Your task to perform on an android device: turn on the 12-hour format for clock Image 0: 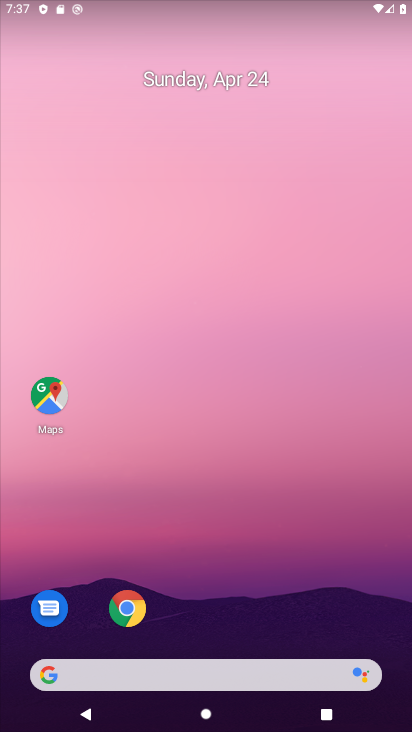
Step 0: drag from (281, 597) to (285, 132)
Your task to perform on an android device: turn on the 12-hour format for clock Image 1: 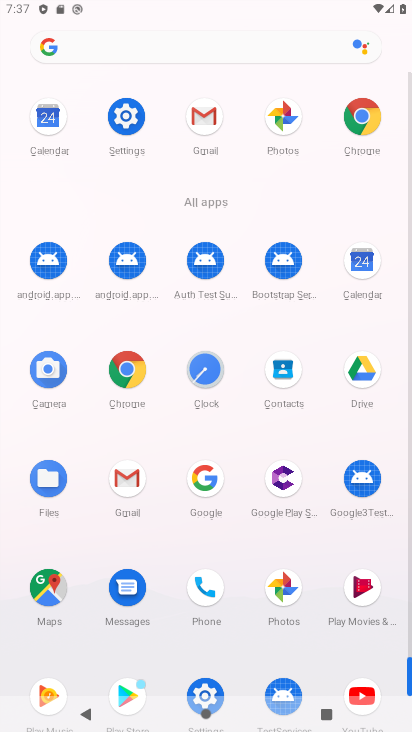
Step 1: click (207, 376)
Your task to perform on an android device: turn on the 12-hour format for clock Image 2: 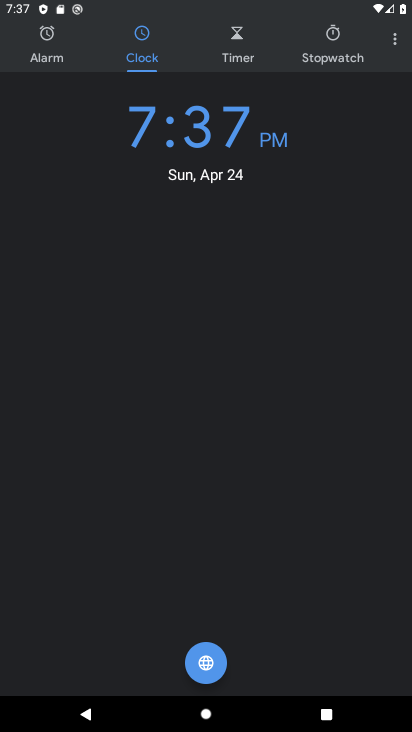
Step 2: click (397, 43)
Your task to perform on an android device: turn on the 12-hour format for clock Image 3: 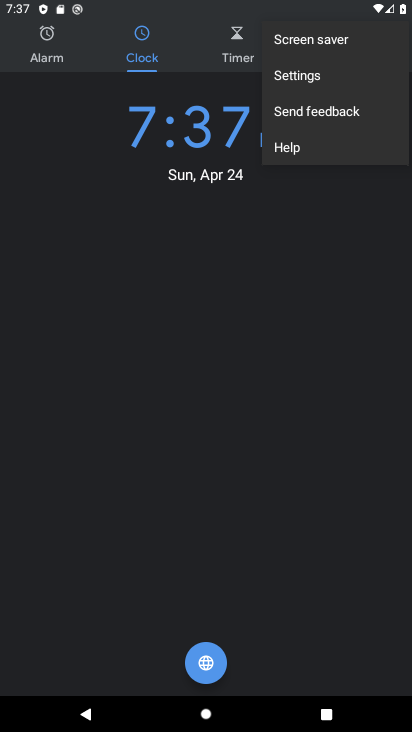
Step 3: click (356, 73)
Your task to perform on an android device: turn on the 12-hour format for clock Image 4: 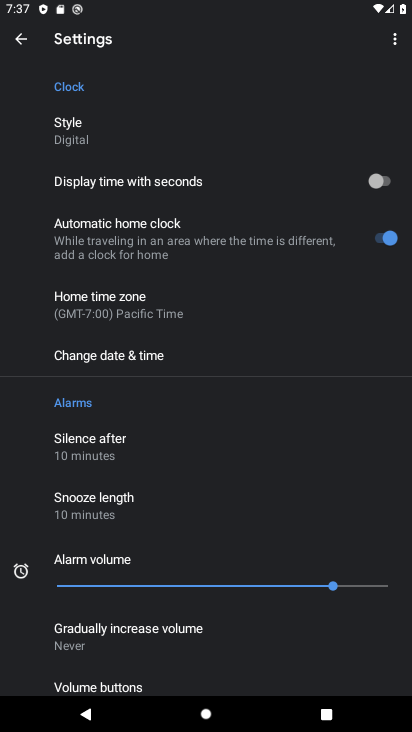
Step 4: click (227, 355)
Your task to perform on an android device: turn on the 12-hour format for clock Image 5: 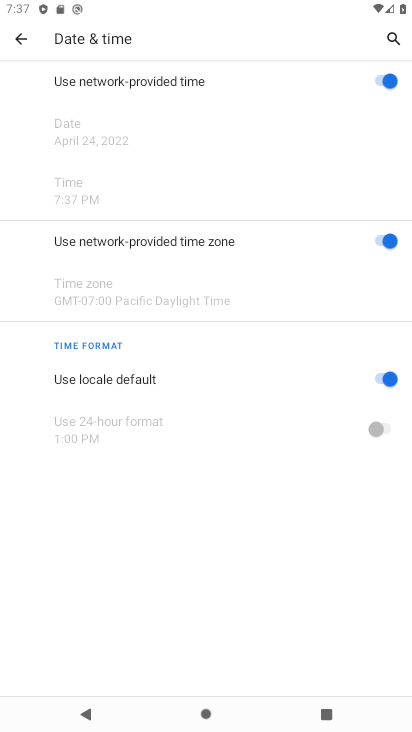
Step 5: task complete